Your task to perform on an android device: visit the assistant section in the google photos Image 0: 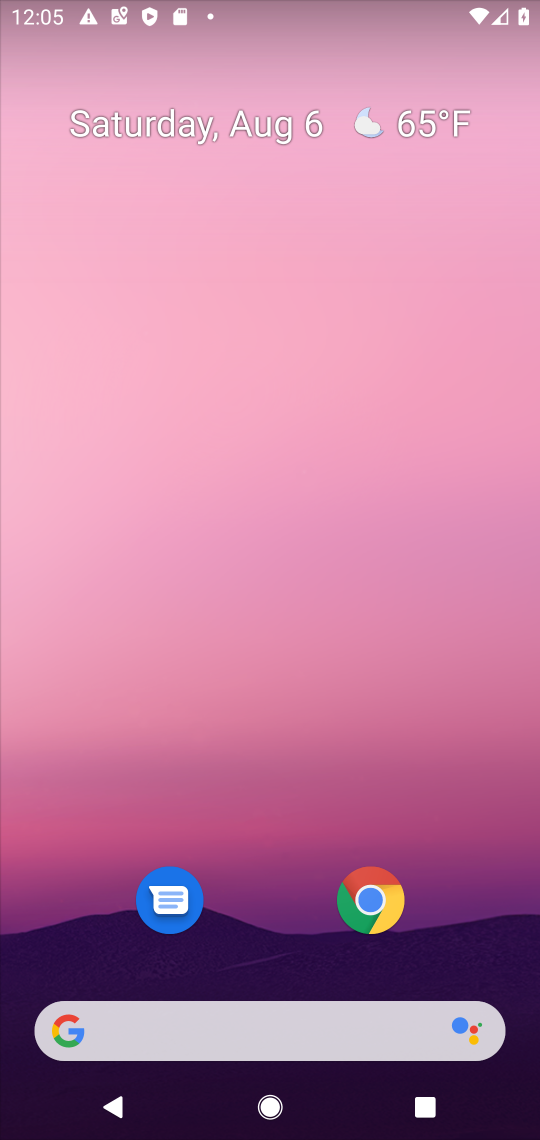
Step 0: drag from (218, 662) to (209, 115)
Your task to perform on an android device: visit the assistant section in the google photos Image 1: 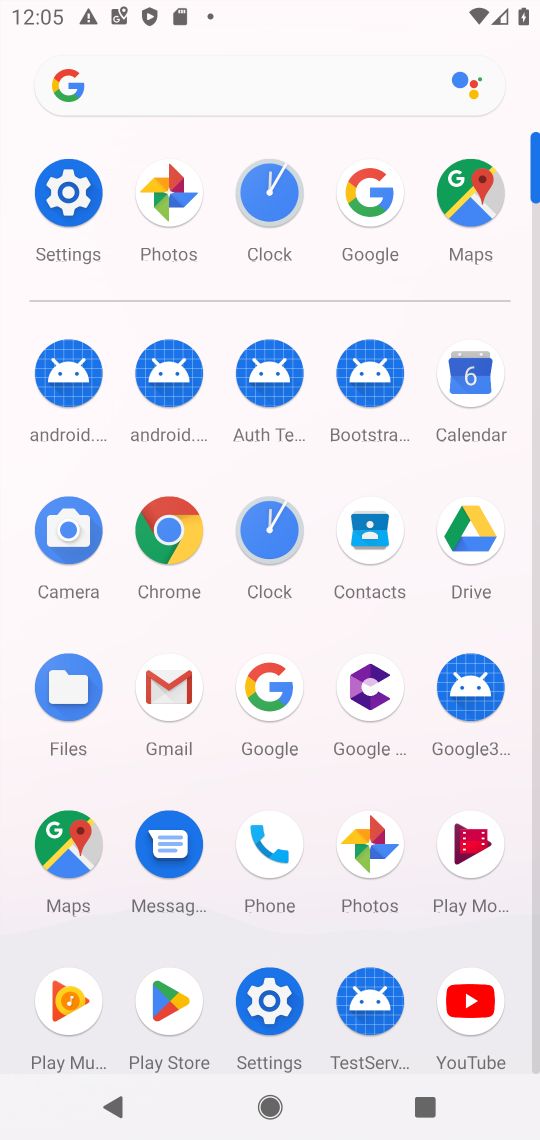
Step 1: click (382, 842)
Your task to perform on an android device: visit the assistant section in the google photos Image 2: 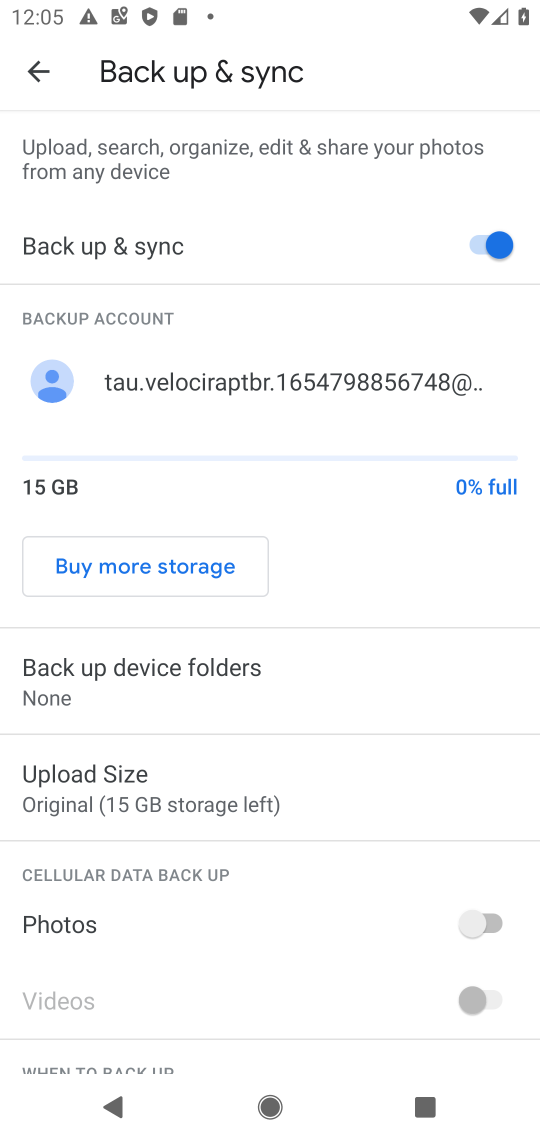
Step 2: click (42, 73)
Your task to perform on an android device: visit the assistant section in the google photos Image 3: 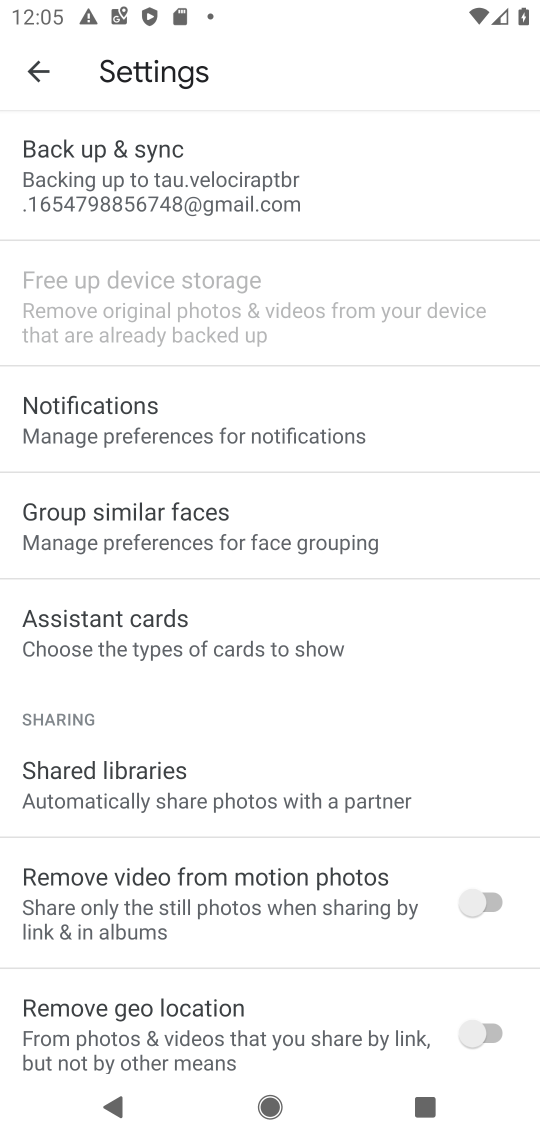
Step 3: click (31, 67)
Your task to perform on an android device: visit the assistant section in the google photos Image 4: 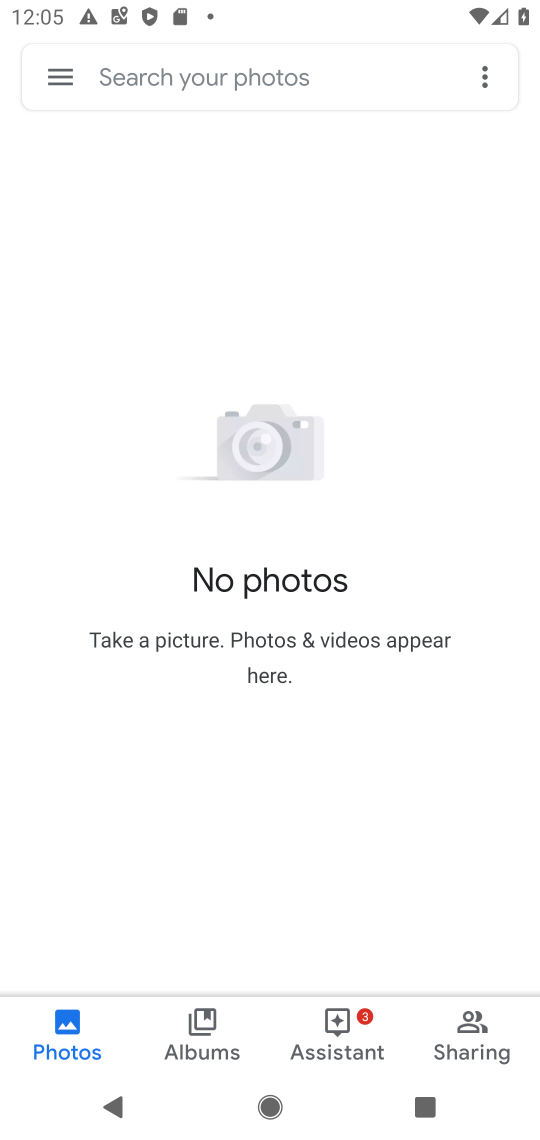
Step 4: click (333, 1025)
Your task to perform on an android device: visit the assistant section in the google photos Image 5: 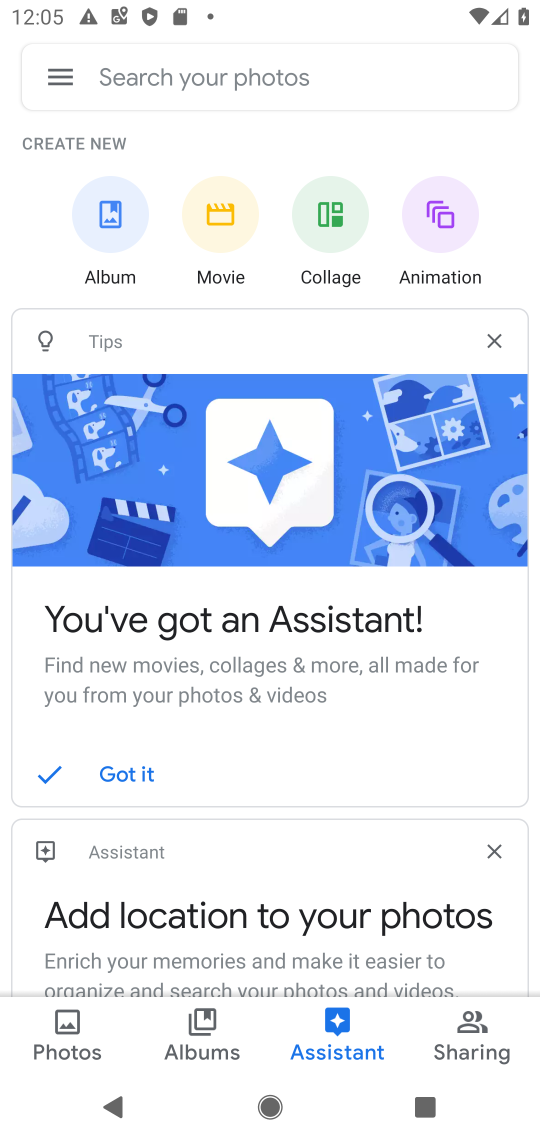
Step 5: task complete